Your task to perform on an android device: turn off notifications in google photos Image 0: 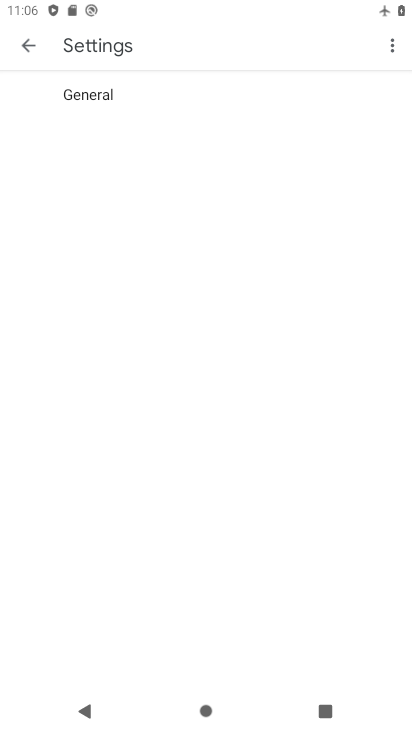
Step 0: press home button
Your task to perform on an android device: turn off notifications in google photos Image 1: 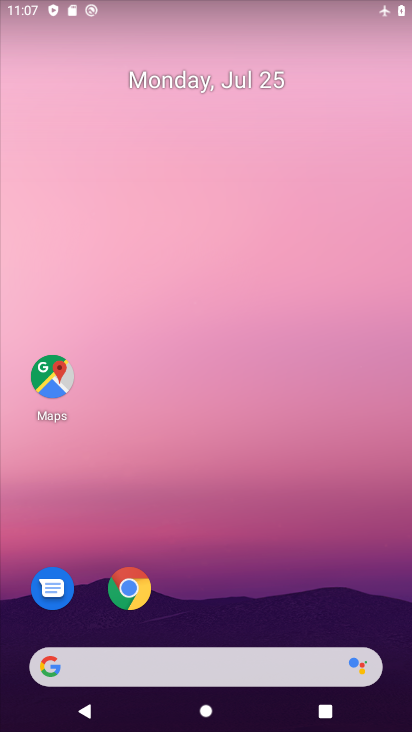
Step 1: click (238, 18)
Your task to perform on an android device: turn off notifications in google photos Image 2: 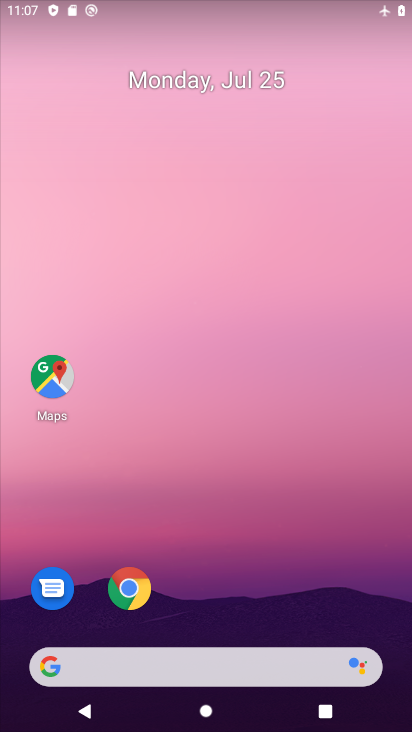
Step 2: drag from (223, 154) to (239, 106)
Your task to perform on an android device: turn off notifications in google photos Image 3: 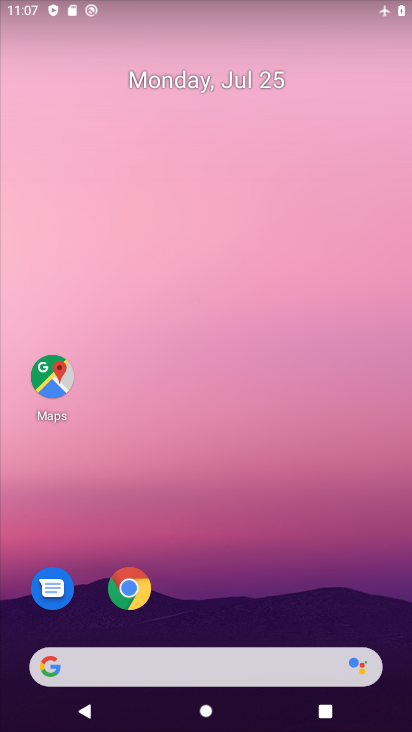
Step 3: drag from (180, 565) to (267, 80)
Your task to perform on an android device: turn off notifications in google photos Image 4: 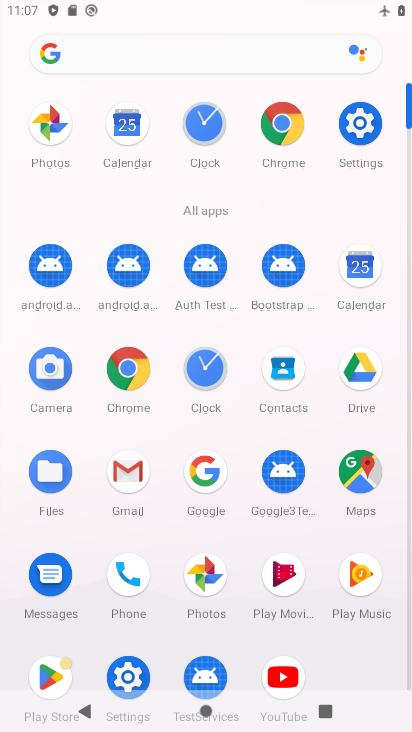
Step 4: click (204, 586)
Your task to perform on an android device: turn off notifications in google photos Image 5: 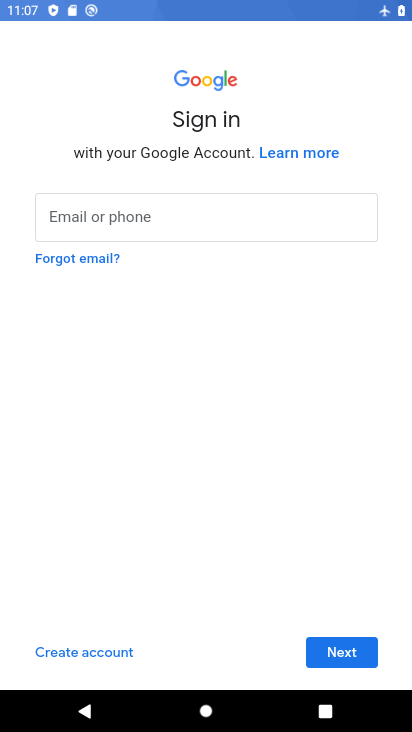
Step 5: task complete